Your task to perform on an android device: change the clock display to analog Image 0: 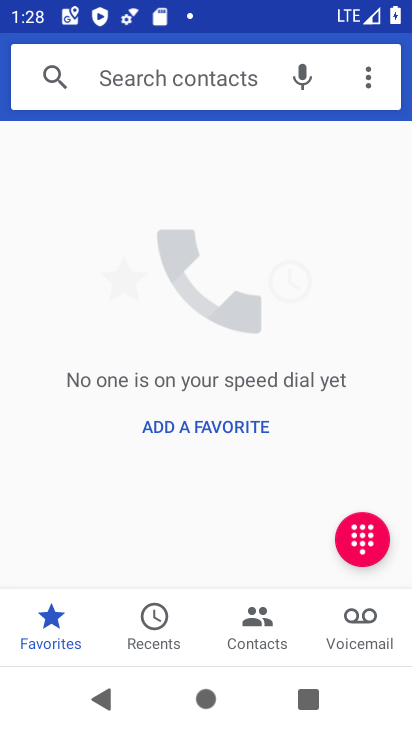
Step 0: press home button
Your task to perform on an android device: change the clock display to analog Image 1: 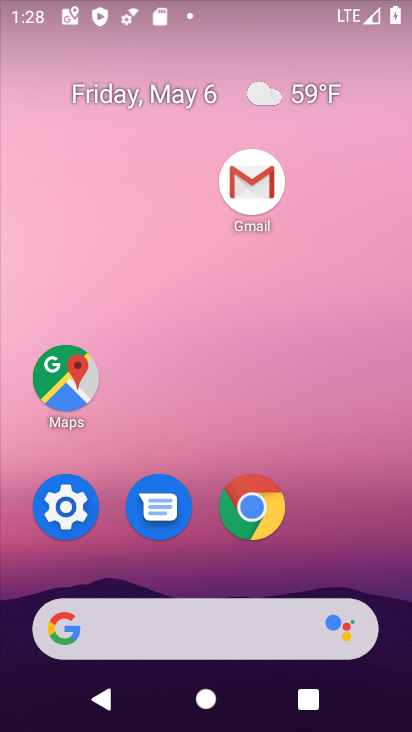
Step 1: drag from (332, 522) to (293, 78)
Your task to perform on an android device: change the clock display to analog Image 2: 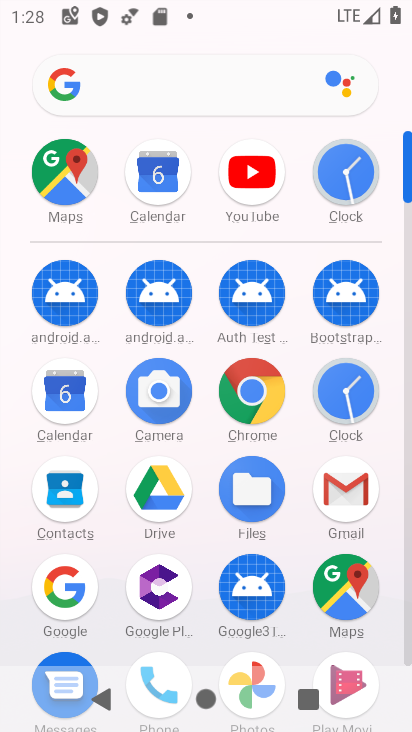
Step 2: click (351, 375)
Your task to perform on an android device: change the clock display to analog Image 3: 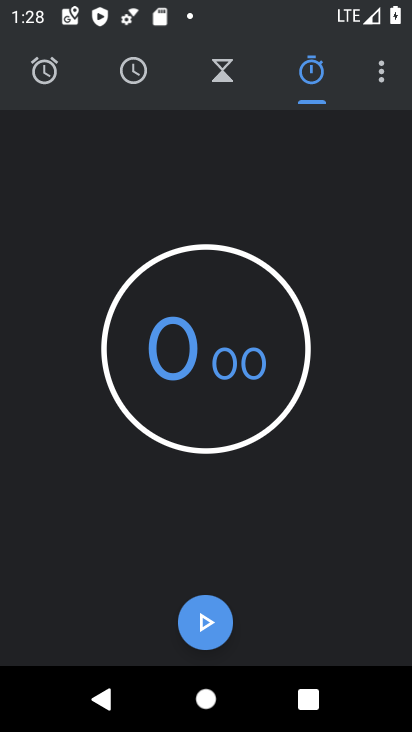
Step 3: click (387, 69)
Your task to perform on an android device: change the clock display to analog Image 4: 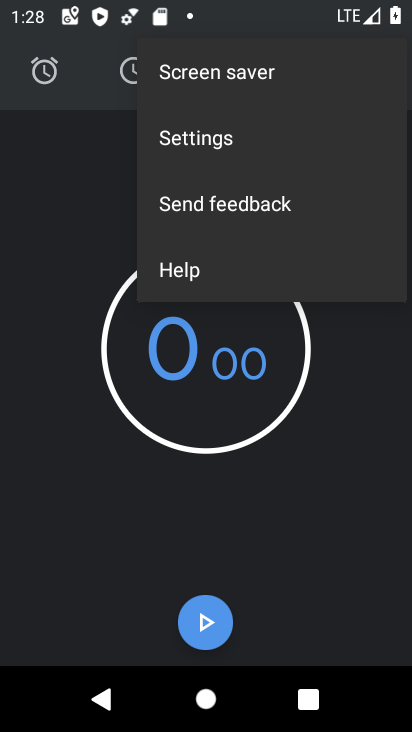
Step 4: click (197, 144)
Your task to perform on an android device: change the clock display to analog Image 5: 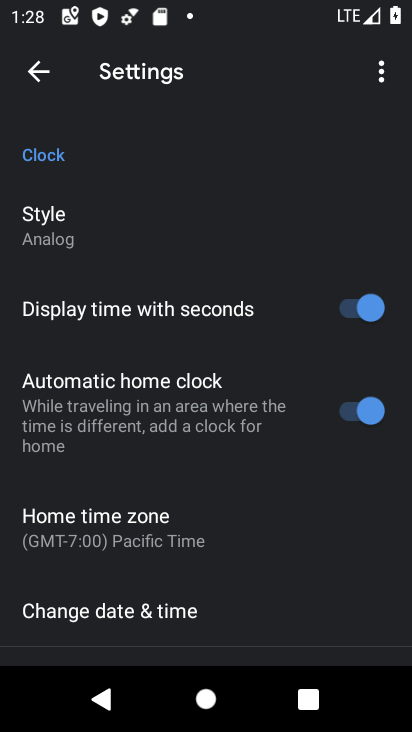
Step 5: click (54, 220)
Your task to perform on an android device: change the clock display to analog Image 6: 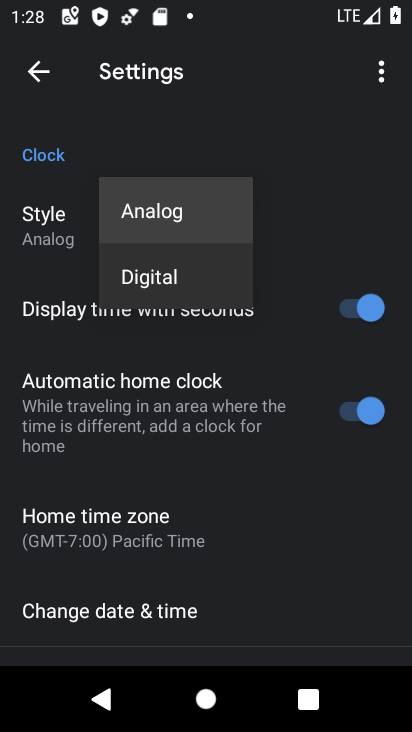
Step 6: task complete